Your task to perform on an android device: What's on my calendar tomorrow? Image 0: 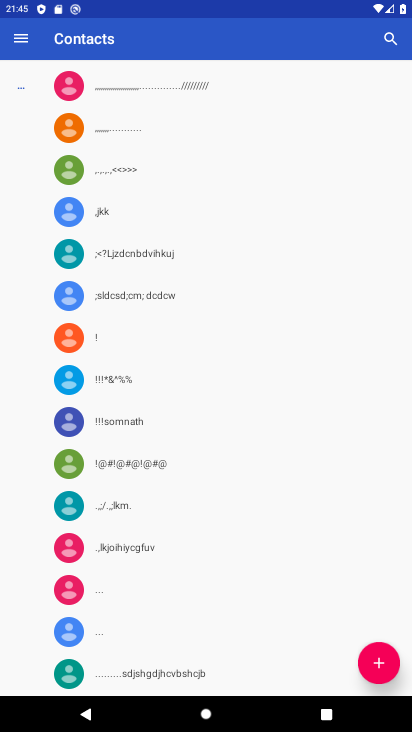
Step 0: press home button
Your task to perform on an android device: What's on my calendar tomorrow? Image 1: 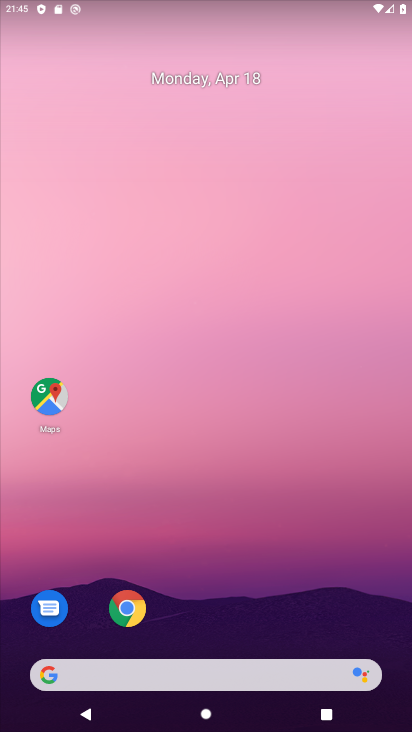
Step 1: drag from (283, 564) to (276, 168)
Your task to perform on an android device: What's on my calendar tomorrow? Image 2: 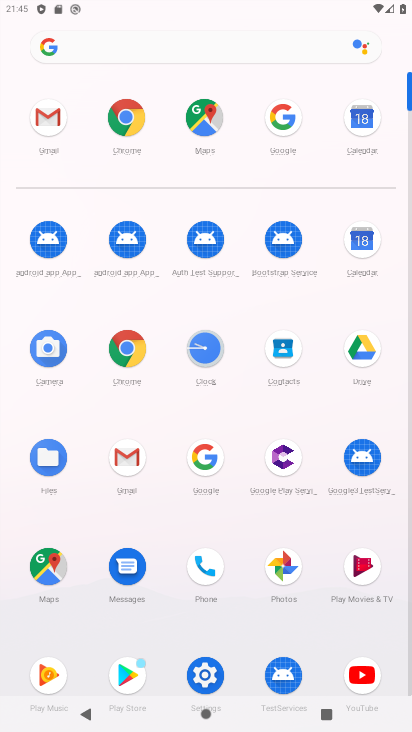
Step 2: click (362, 238)
Your task to perform on an android device: What's on my calendar tomorrow? Image 3: 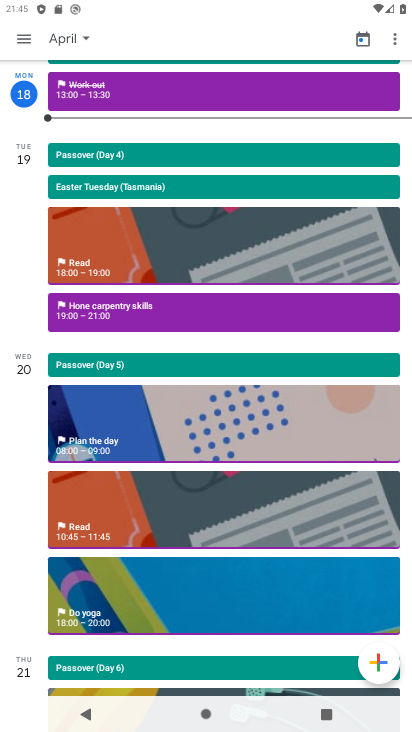
Step 3: click (79, 37)
Your task to perform on an android device: What's on my calendar tomorrow? Image 4: 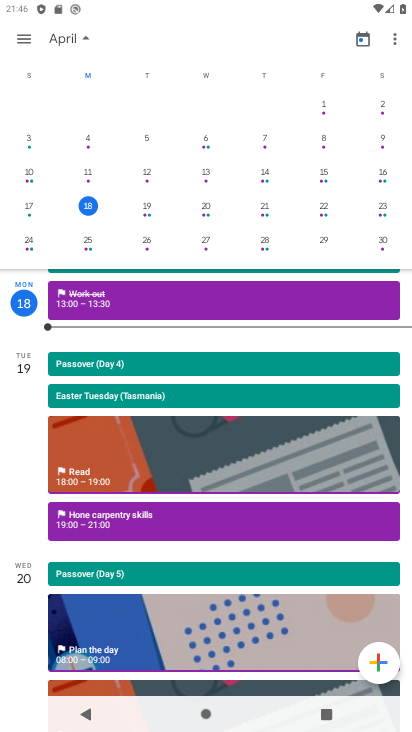
Step 4: click (142, 205)
Your task to perform on an android device: What's on my calendar tomorrow? Image 5: 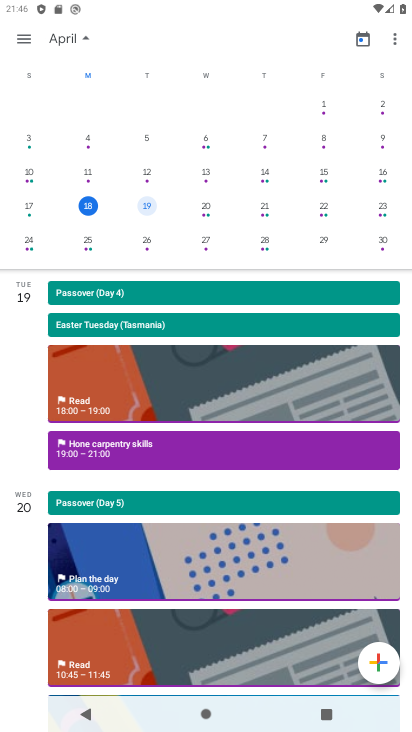
Step 5: task complete